Your task to perform on an android device: Open Google Maps Image 0: 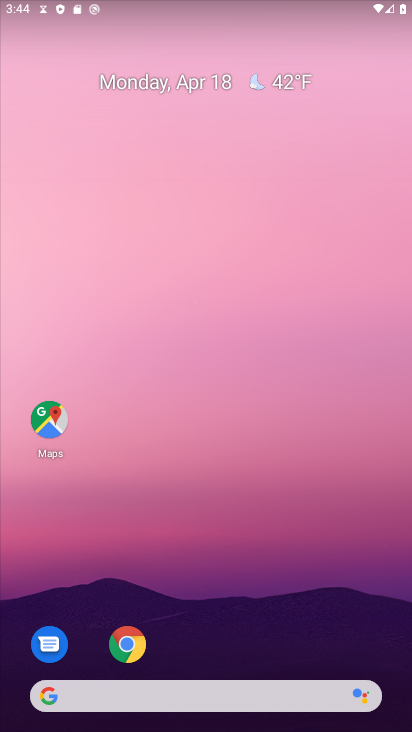
Step 0: click (50, 418)
Your task to perform on an android device: Open Google Maps Image 1: 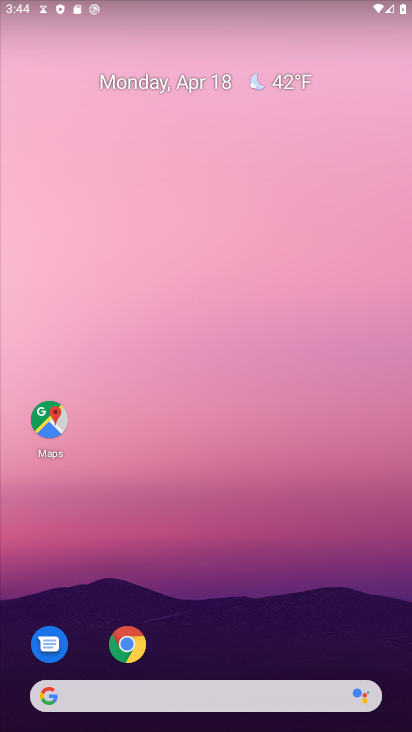
Step 1: click (50, 418)
Your task to perform on an android device: Open Google Maps Image 2: 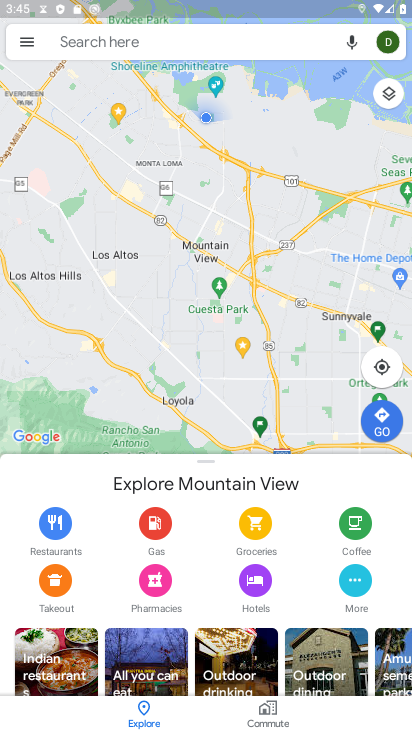
Step 2: task complete